Your task to perform on an android device: Open Chrome and go to settings Image 0: 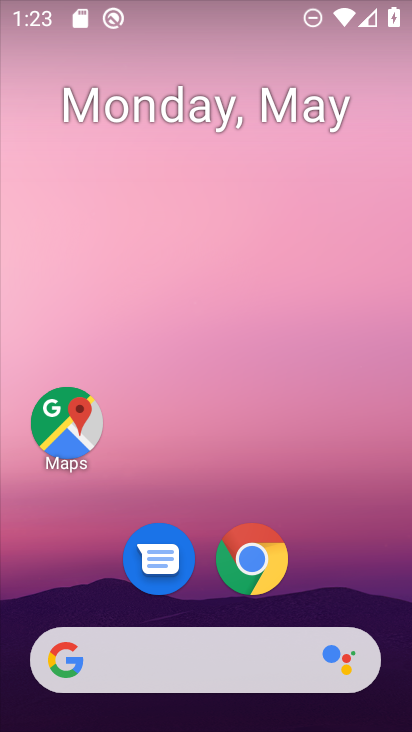
Step 0: click (238, 555)
Your task to perform on an android device: Open Chrome and go to settings Image 1: 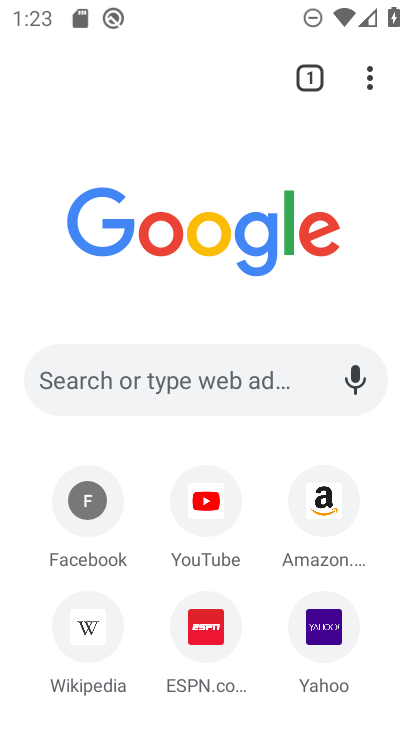
Step 1: click (377, 79)
Your task to perform on an android device: Open Chrome and go to settings Image 2: 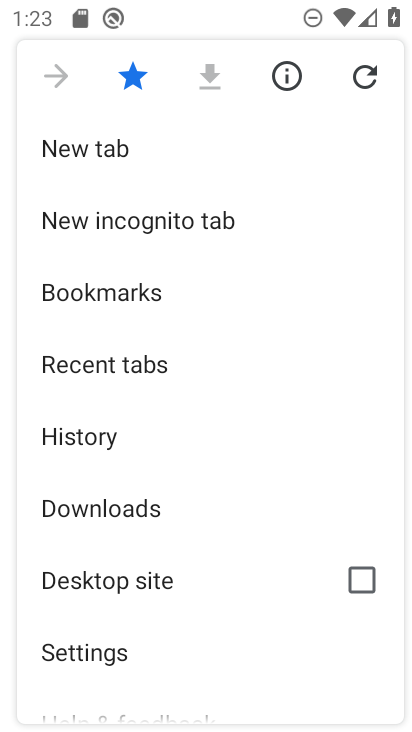
Step 2: click (143, 648)
Your task to perform on an android device: Open Chrome and go to settings Image 3: 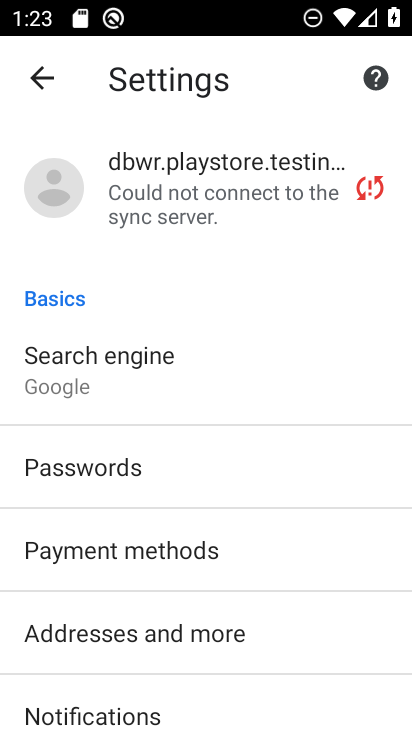
Step 3: task complete